Your task to perform on an android device: Open Chrome and go to the settings page Image 0: 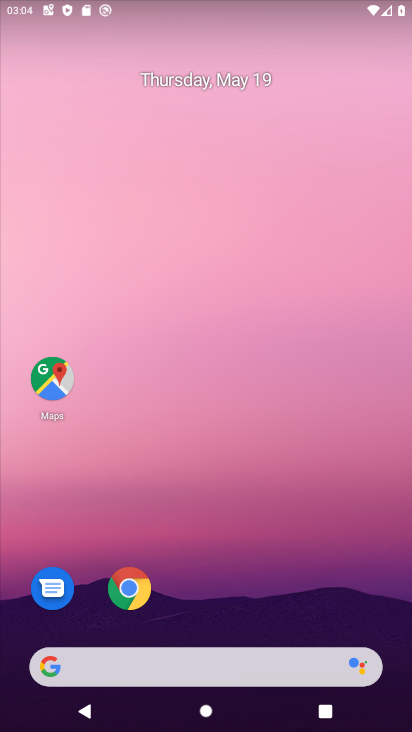
Step 0: click (135, 592)
Your task to perform on an android device: Open Chrome and go to the settings page Image 1: 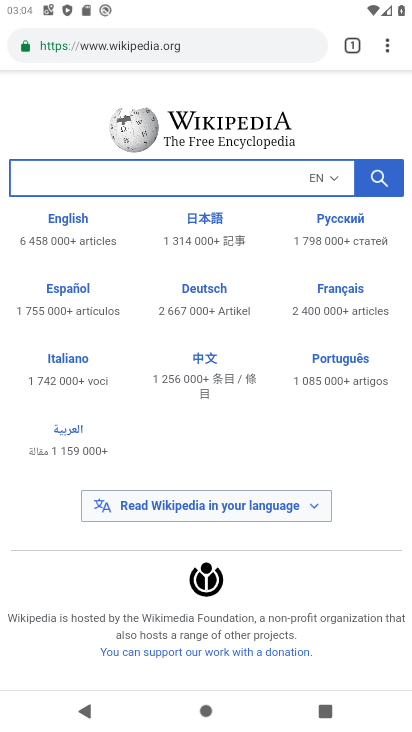
Step 1: click (376, 44)
Your task to perform on an android device: Open Chrome and go to the settings page Image 2: 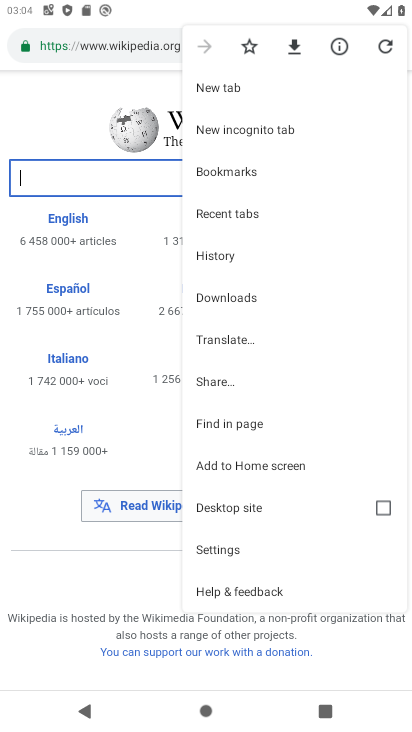
Step 2: click (235, 550)
Your task to perform on an android device: Open Chrome and go to the settings page Image 3: 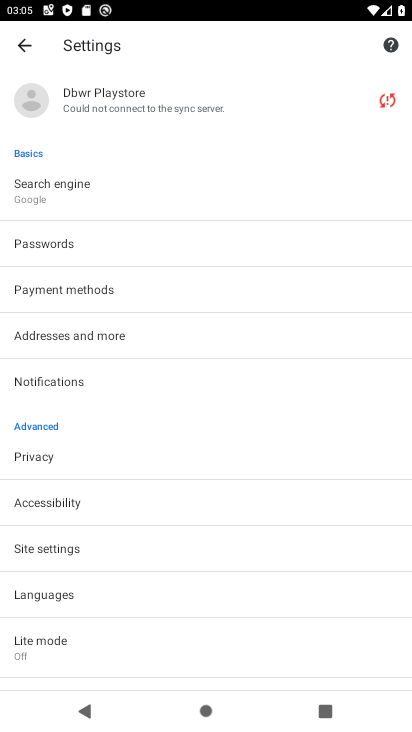
Step 3: task complete